Your task to perform on an android device: turn on priority inbox in the gmail app Image 0: 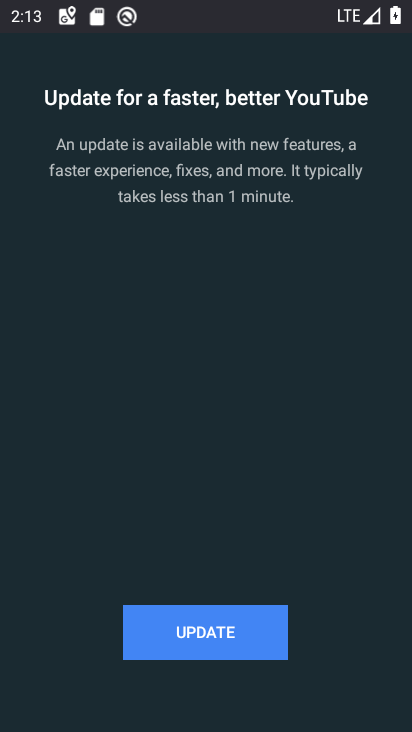
Step 0: press home button
Your task to perform on an android device: turn on priority inbox in the gmail app Image 1: 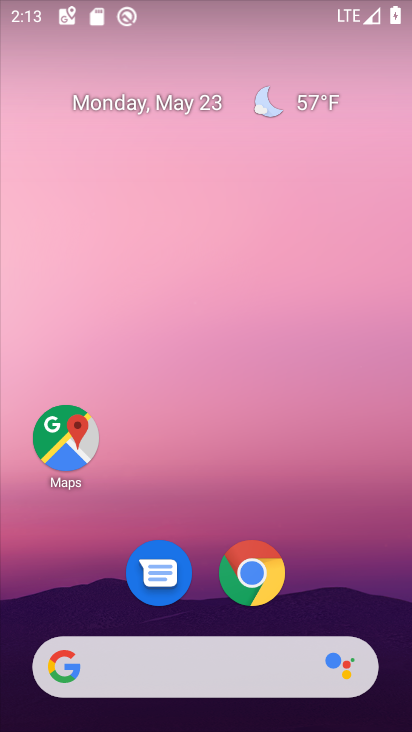
Step 1: drag from (315, 594) to (289, 55)
Your task to perform on an android device: turn on priority inbox in the gmail app Image 2: 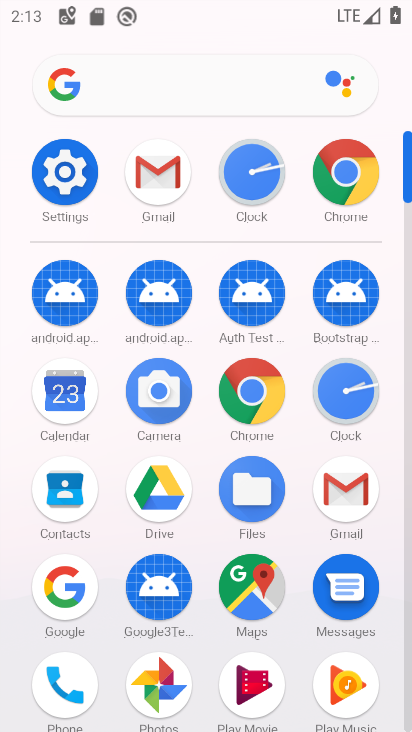
Step 2: click (352, 491)
Your task to perform on an android device: turn on priority inbox in the gmail app Image 3: 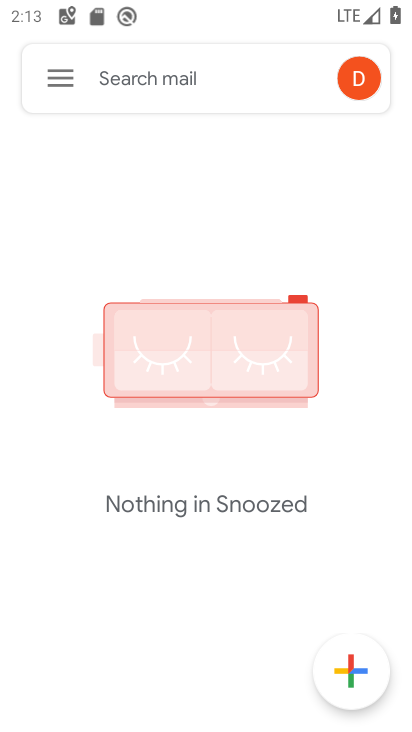
Step 3: click (58, 79)
Your task to perform on an android device: turn on priority inbox in the gmail app Image 4: 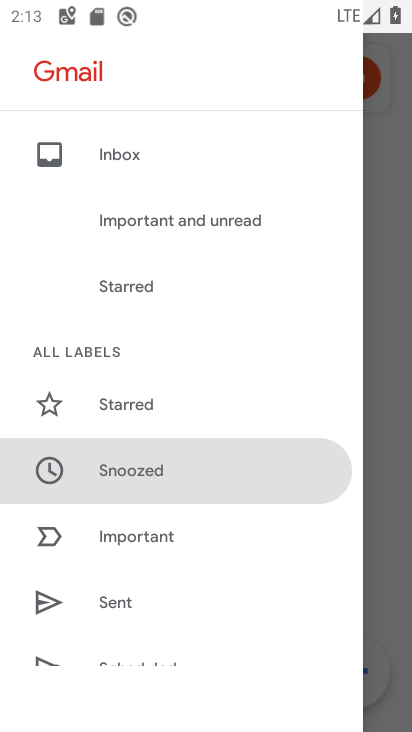
Step 4: drag from (225, 604) to (197, 203)
Your task to perform on an android device: turn on priority inbox in the gmail app Image 5: 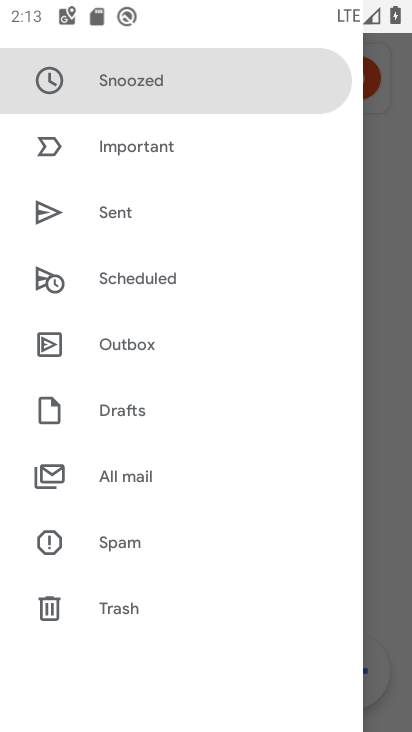
Step 5: drag from (209, 556) to (193, 199)
Your task to perform on an android device: turn on priority inbox in the gmail app Image 6: 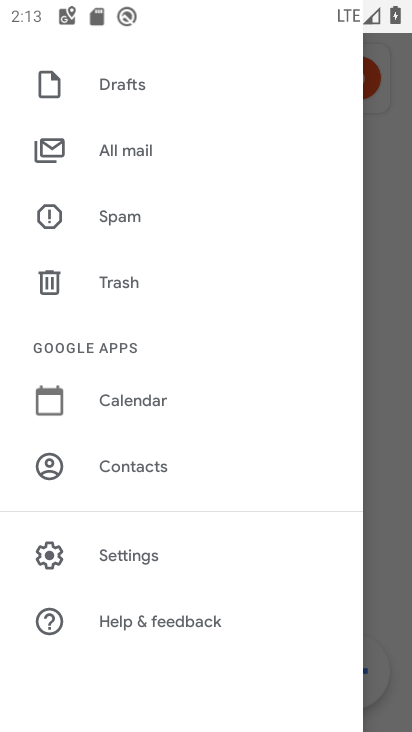
Step 6: click (148, 548)
Your task to perform on an android device: turn on priority inbox in the gmail app Image 7: 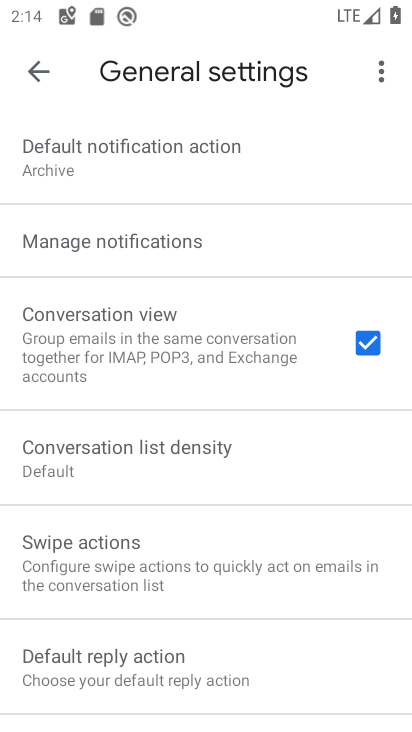
Step 7: click (43, 63)
Your task to perform on an android device: turn on priority inbox in the gmail app Image 8: 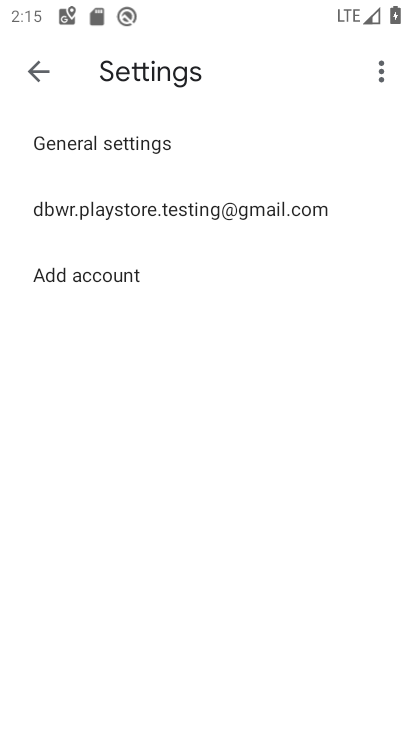
Step 8: click (155, 207)
Your task to perform on an android device: turn on priority inbox in the gmail app Image 9: 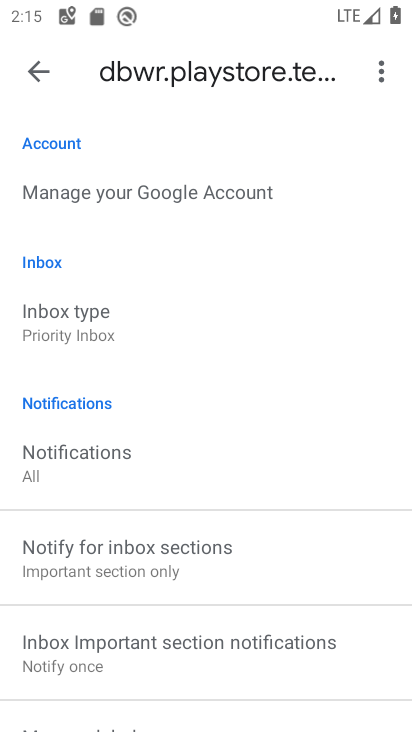
Step 9: task complete